Your task to perform on an android device: delete a single message in the gmail app Image 0: 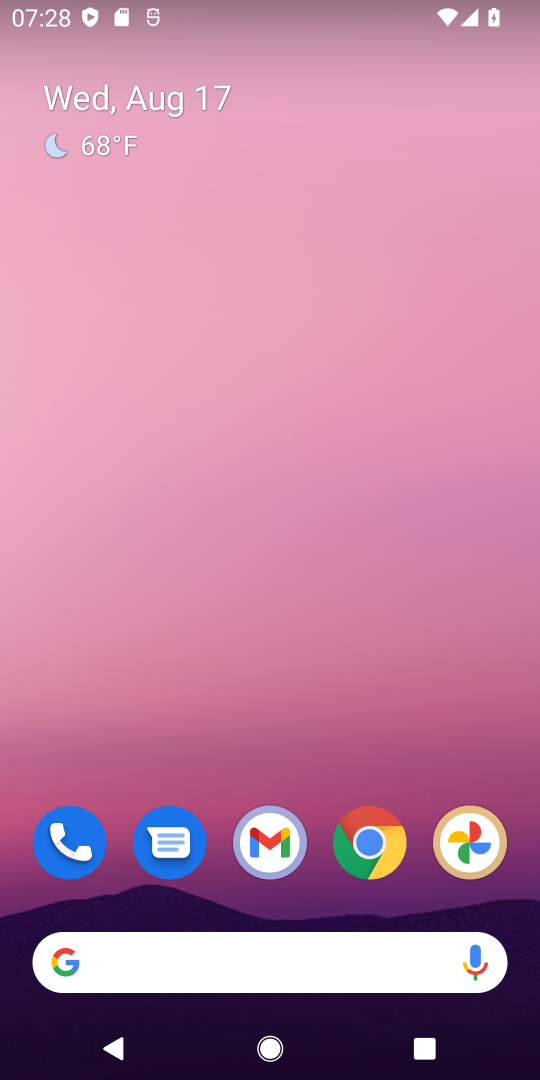
Step 0: click (273, 839)
Your task to perform on an android device: delete a single message in the gmail app Image 1: 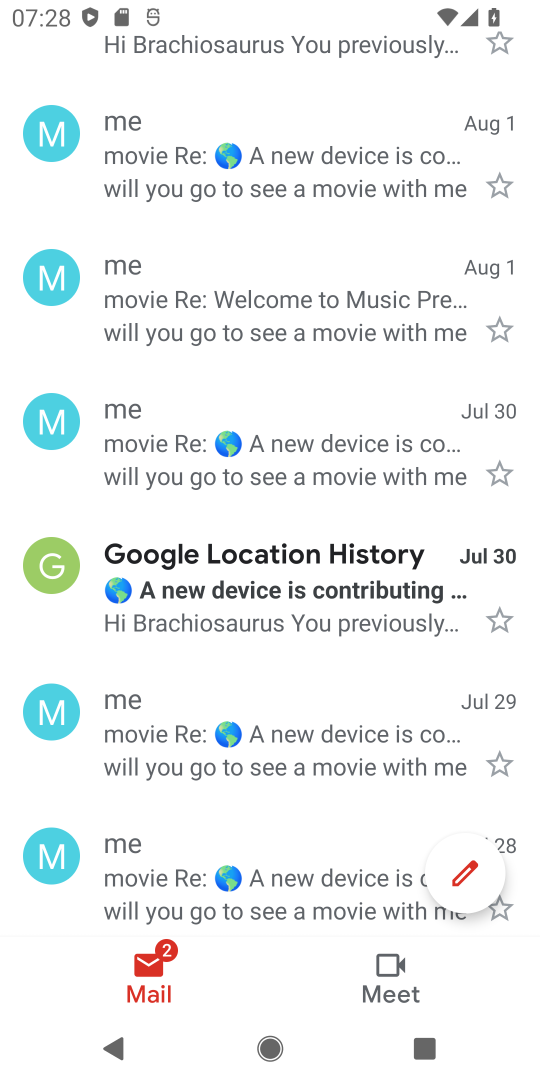
Step 1: drag from (284, 808) to (337, 115)
Your task to perform on an android device: delete a single message in the gmail app Image 2: 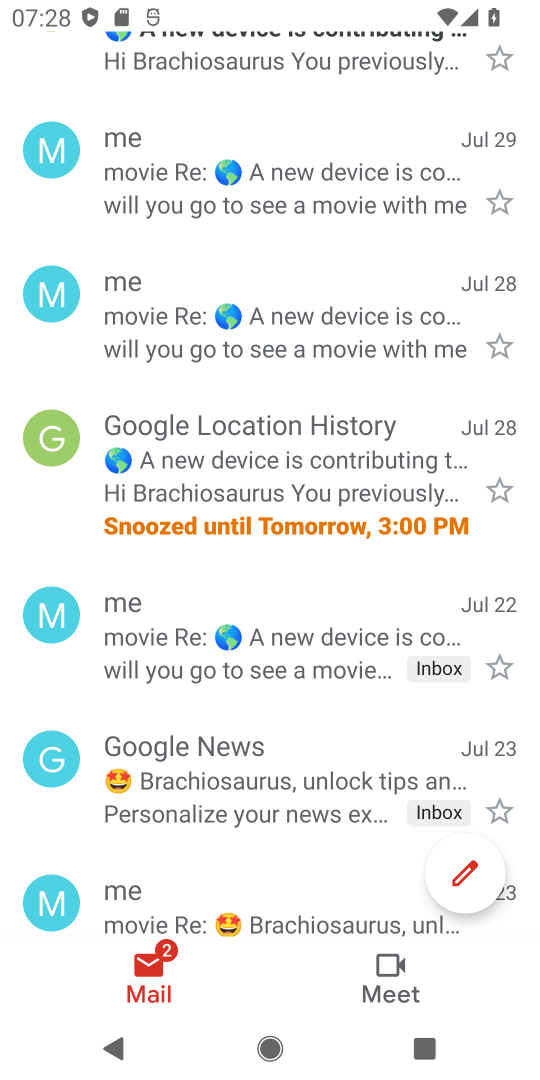
Step 2: drag from (250, 726) to (294, 3)
Your task to perform on an android device: delete a single message in the gmail app Image 3: 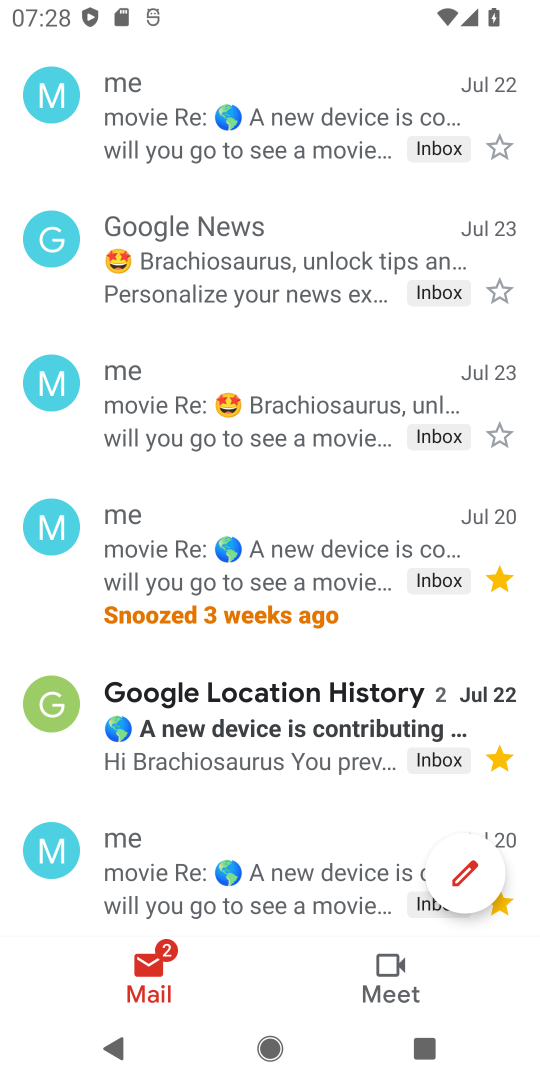
Step 3: click (68, 851)
Your task to perform on an android device: delete a single message in the gmail app Image 4: 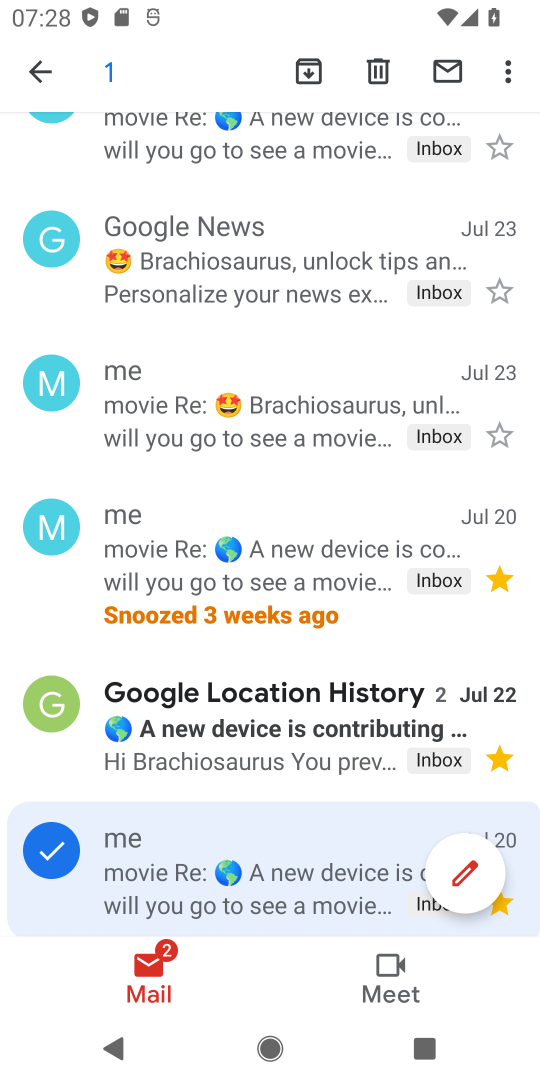
Step 4: click (378, 65)
Your task to perform on an android device: delete a single message in the gmail app Image 5: 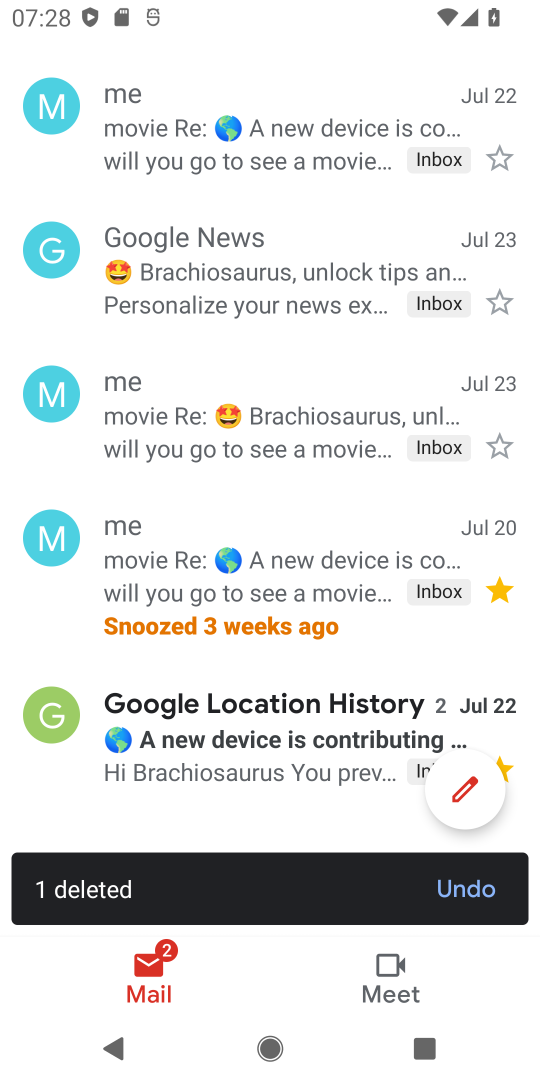
Step 5: task complete